Your task to perform on an android device: Check the news Image 0: 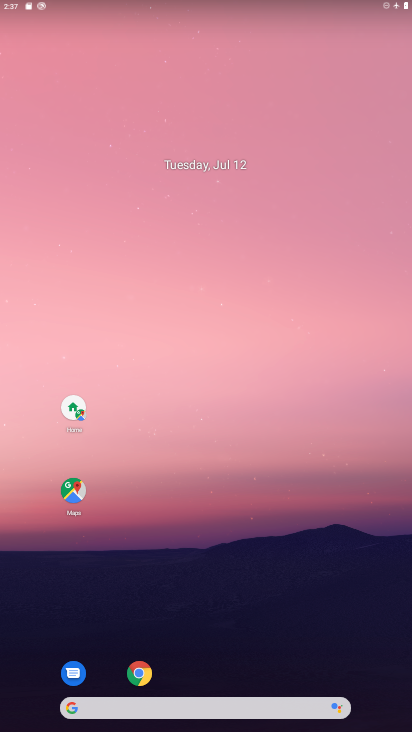
Step 0: drag from (216, 619) to (221, 296)
Your task to perform on an android device: Check the news Image 1: 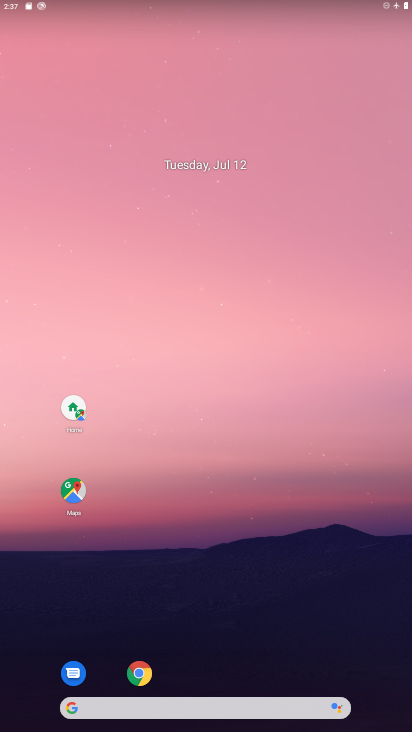
Step 1: drag from (227, 666) to (228, 271)
Your task to perform on an android device: Check the news Image 2: 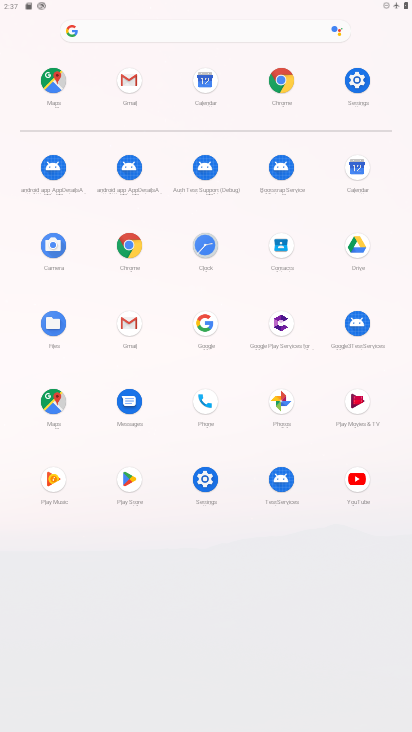
Step 2: click (284, 80)
Your task to perform on an android device: Check the news Image 3: 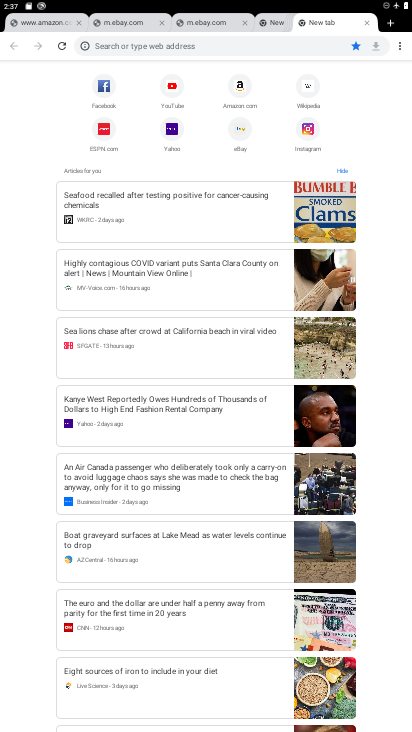
Step 3: click (236, 39)
Your task to perform on an android device: Check the news Image 4: 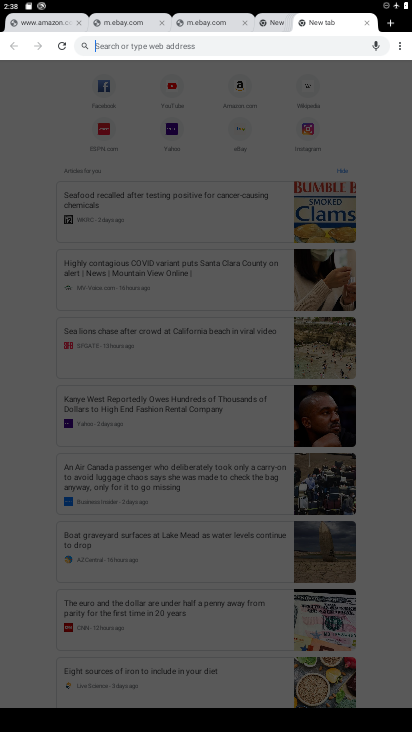
Step 4: type "Check the news "
Your task to perform on an android device: Check the news Image 5: 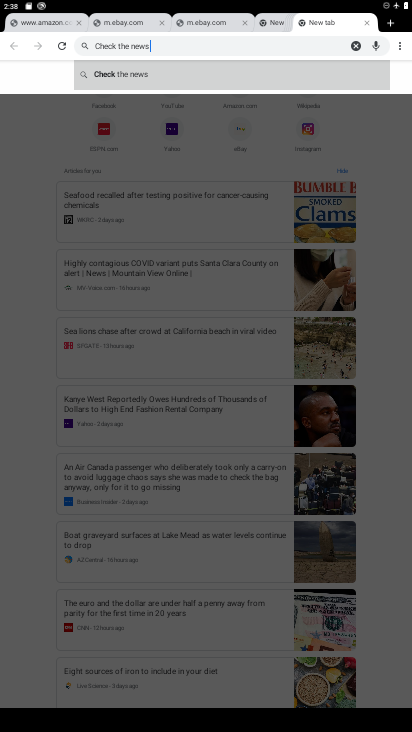
Step 5: click (149, 75)
Your task to perform on an android device: Check the news Image 6: 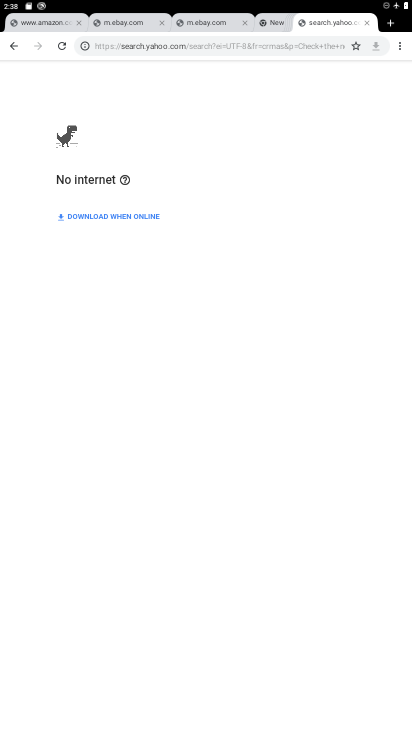
Step 6: task complete